Your task to perform on an android device: What's the weather like in San Francisco? Image 0: 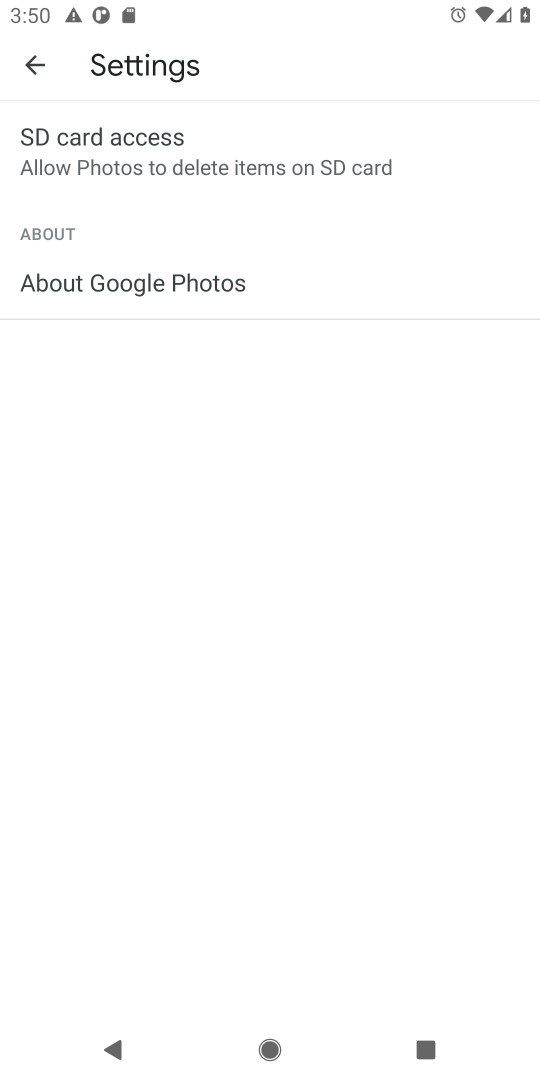
Step 0: press home button
Your task to perform on an android device: What's the weather like in San Francisco? Image 1: 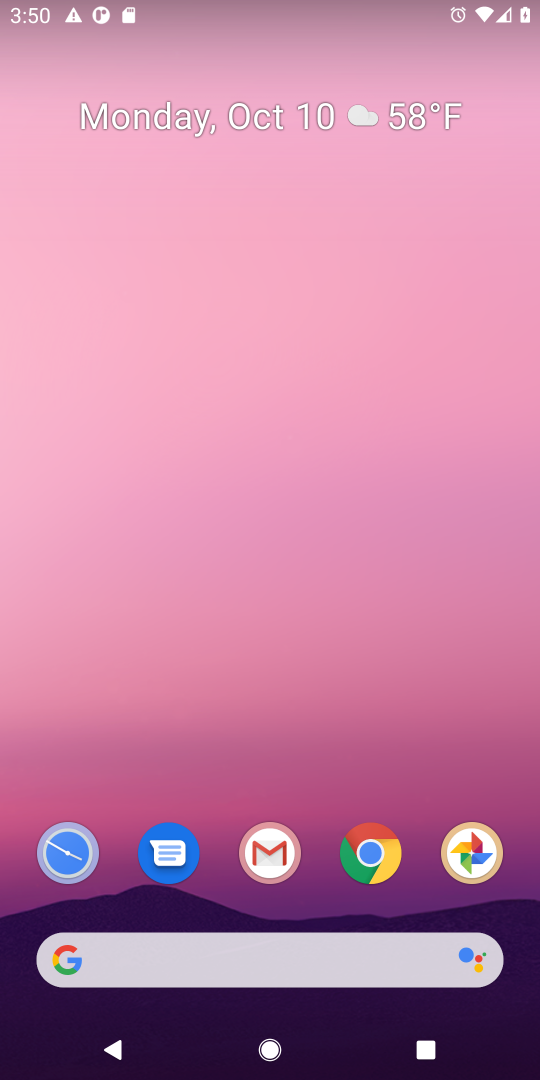
Step 1: drag from (321, 808) to (371, 18)
Your task to perform on an android device: What's the weather like in San Francisco? Image 2: 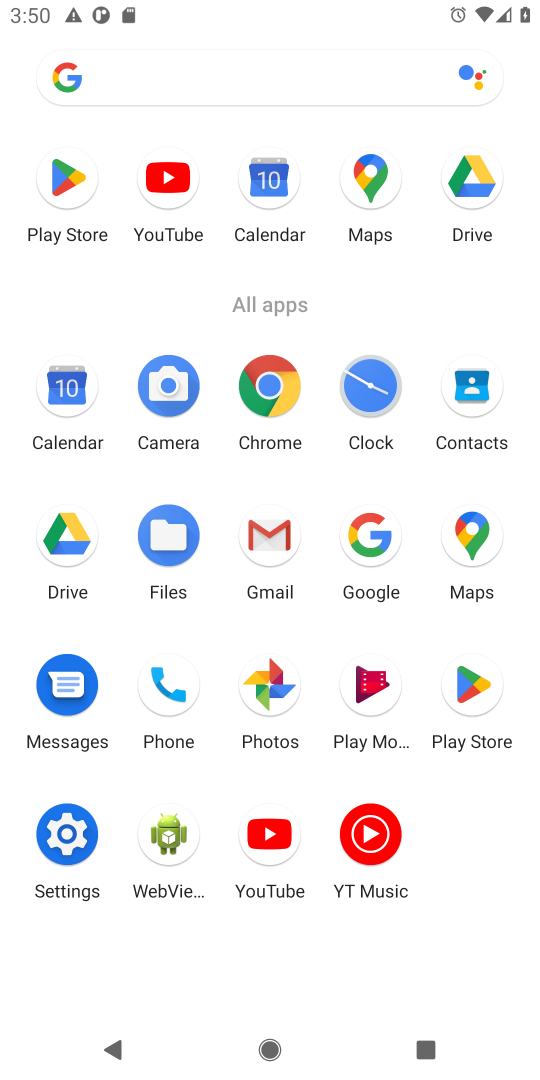
Step 2: click (266, 390)
Your task to perform on an android device: What's the weather like in San Francisco? Image 3: 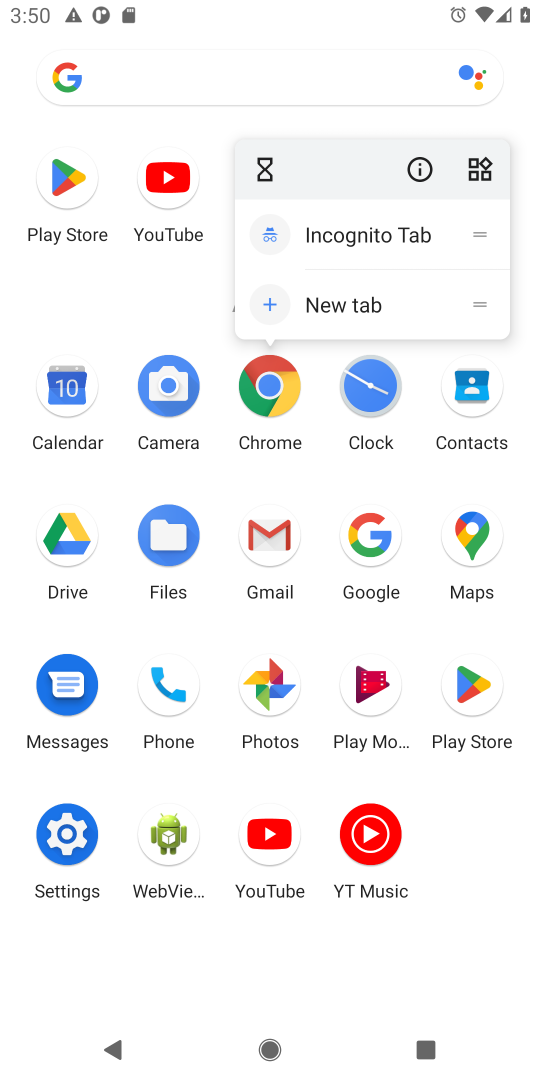
Step 3: click (261, 398)
Your task to perform on an android device: What's the weather like in San Francisco? Image 4: 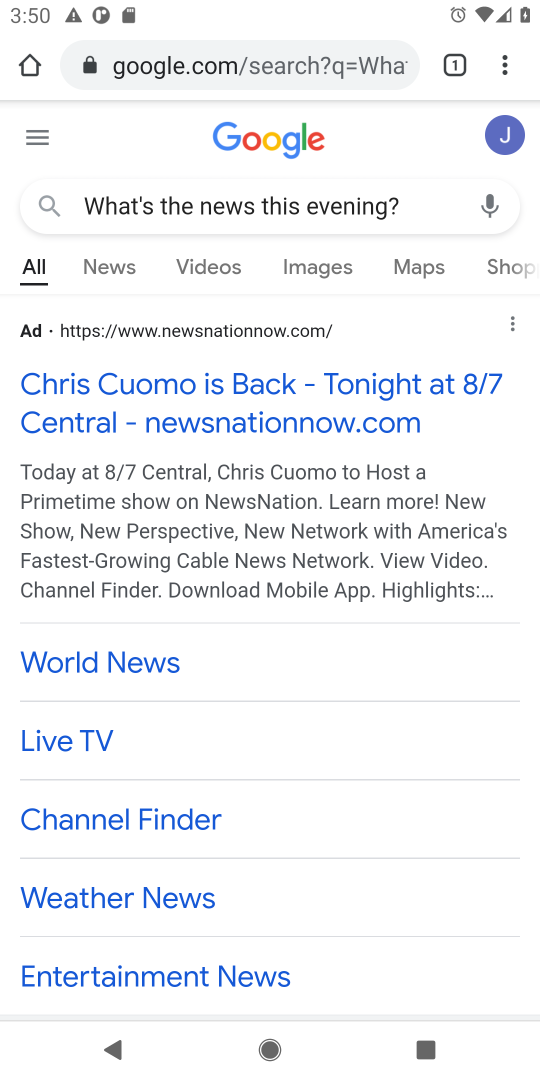
Step 4: click (147, 68)
Your task to perform on an android device: What's the weather like in San Francisco? Image 5: 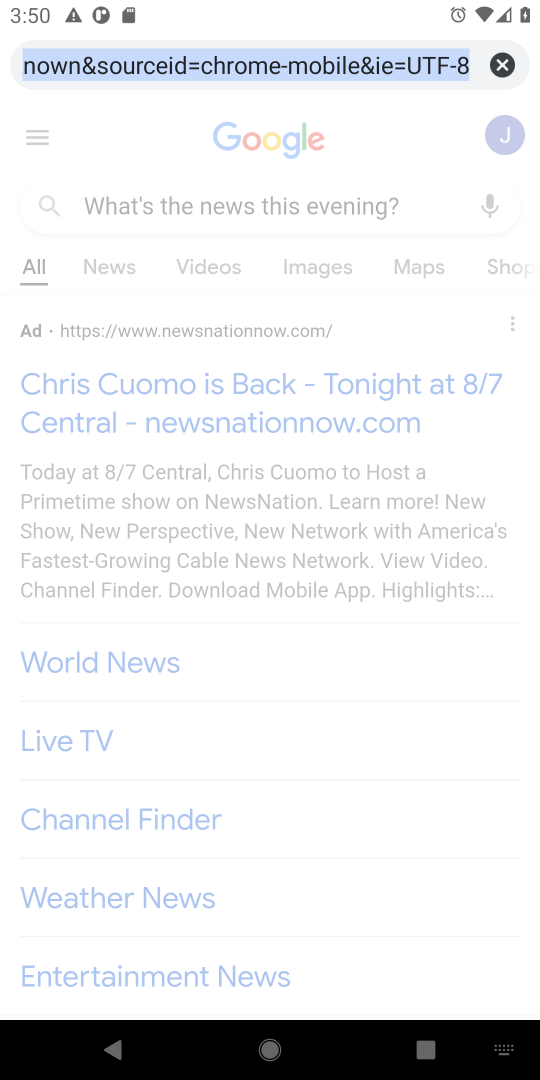
Step 5: click (503, 63)
Your task to perform on an android device: What's the weather like in San Francisco? Image 6: 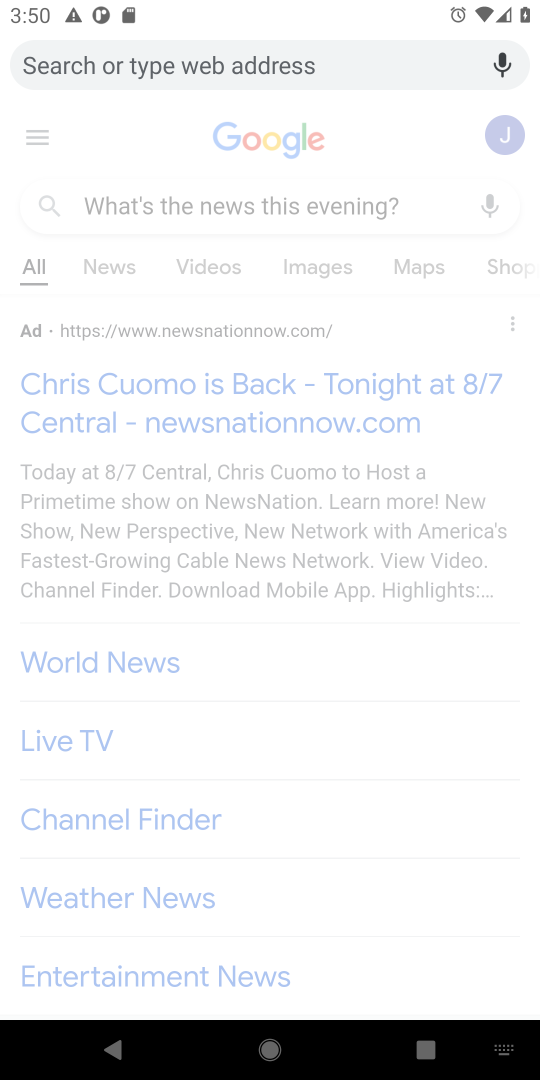
Step 6: type "What's the weather like in San Francisco?"
Your task to perform on an android device: What's the weather like in San Francisco? Image 7: 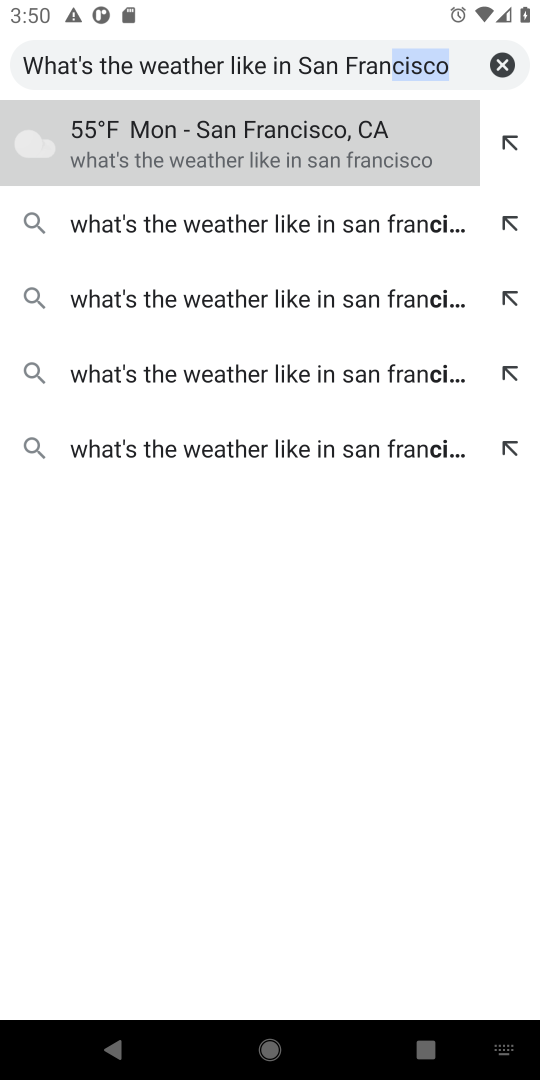
Step 7: click (216, 135)
Your task to perform on an android device: What's the weather like in San Francisco? Image 8: 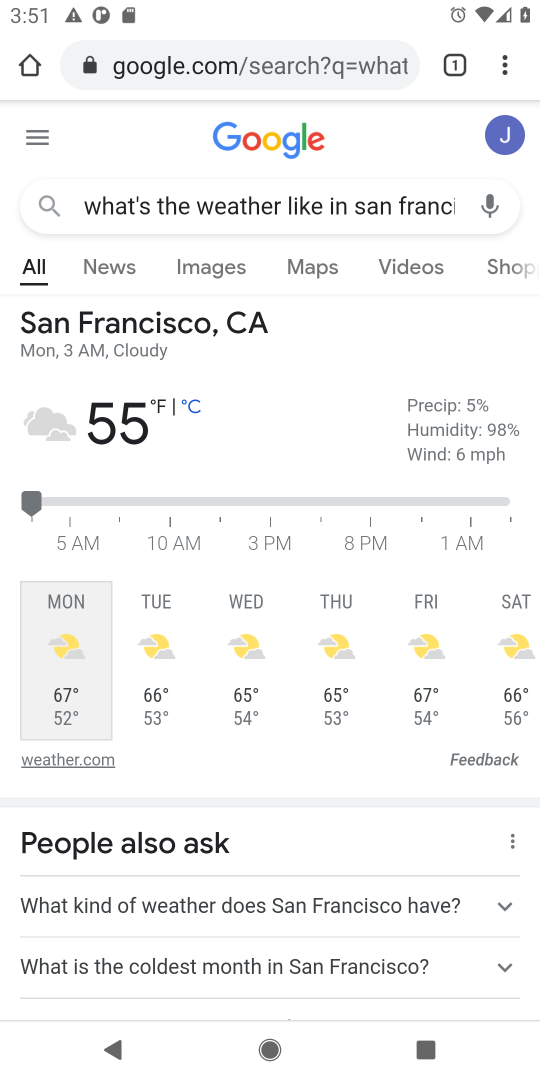
Step 8: task complete